Your task to perform on an android device: open a bookmark in the chrome app Image 0: 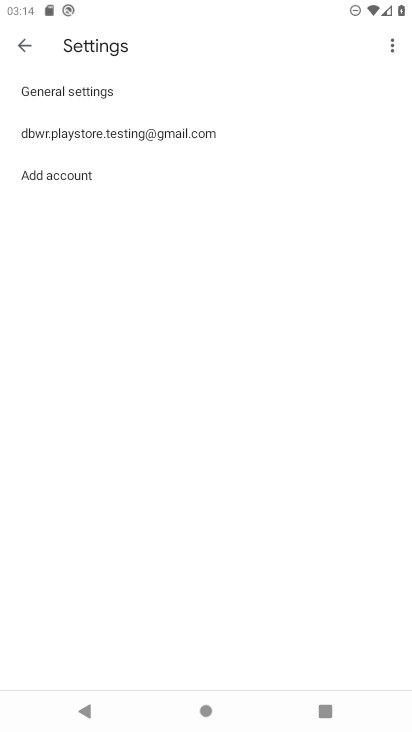
Step 0: press home button
Your task to perform on an android device: open a bookmark in the chrome app Image 1: 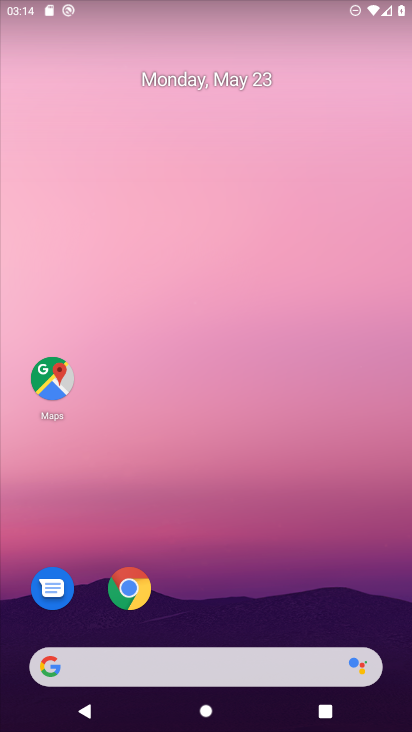
Step 1: click (126, 590)
Your task to perform on an android device: open a bookmark in the chrome app Image 2: 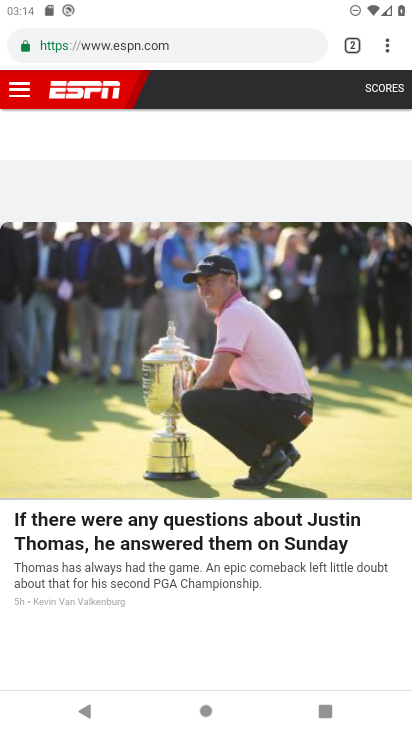
Step 2: click (389, 48)
Your task to perform on an android device: open a bookmark in the chrome app Image 3: 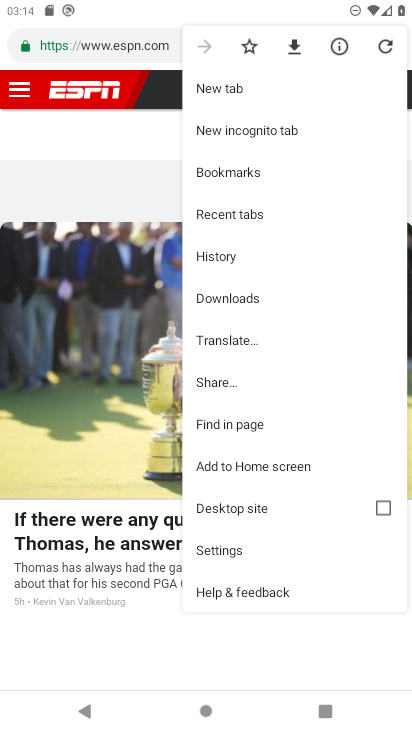
Step 3: click (248, 174)
Your task to perform on an android device: open a bookmark in the chrome app Image 4: 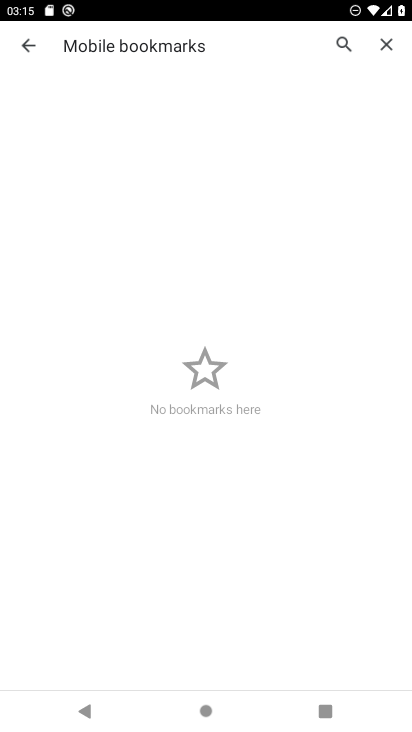
Step 4: task complete